Your task to perform on an android device: turn off data saver in the chrome app Image 0: 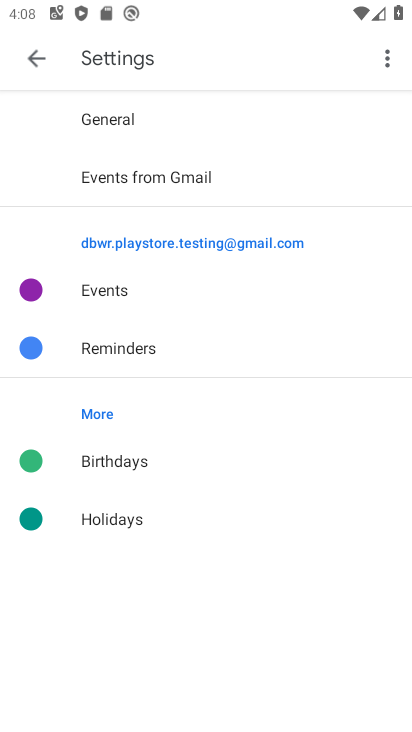
Step 0: press back button
Your task to perform on an android device: turn off data saver in the chrome app Image 1: 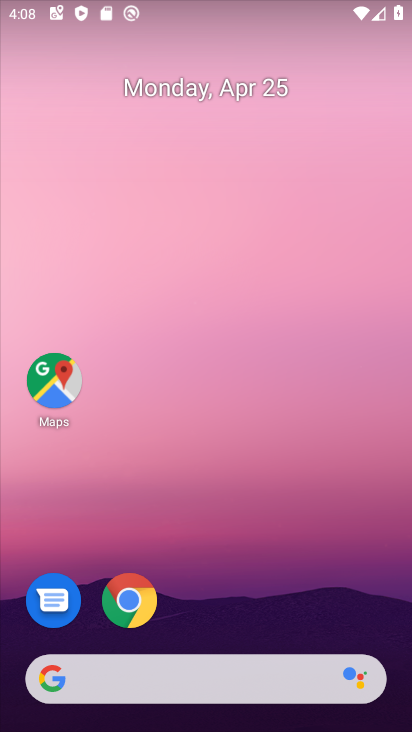
Step 1: drag from (337, 573) to (286, 0)
Your task to perform on an android device: turn off data saver in the chrome app Image 2: 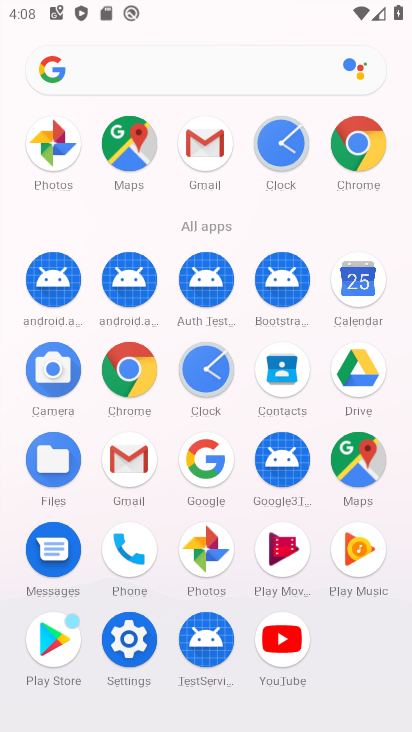
Step 2: click (358, 134)
Your task to perform on an android device: turn off data saver in the chrome app Image 3: 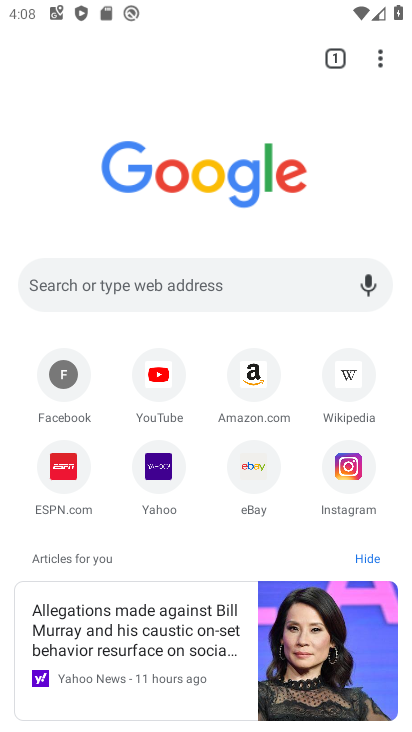
Step 3: drag from (380, 67) to (169, 500)
Your task to perform on an android device: turn off data saver in the chrome app Image 4: 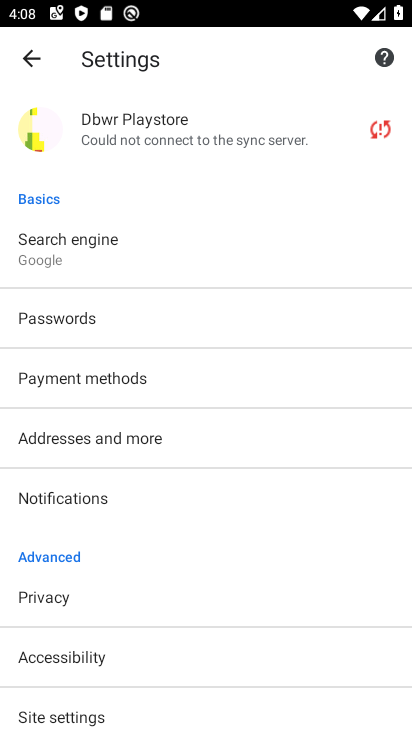
Step 4: drag from (243, 550) to (263, 164)
Your task to perform on an android device: turn off data saver in the chrome app Image 5: 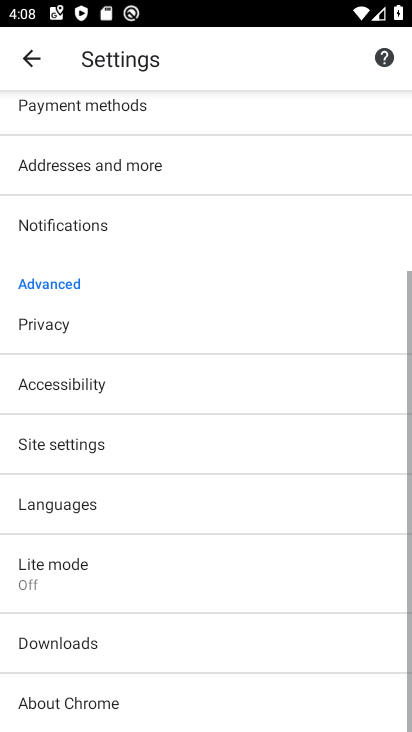
Step 5: click (117, 562)
Your task to perform on an android device: turn off data saver in the chrome app Image 6: 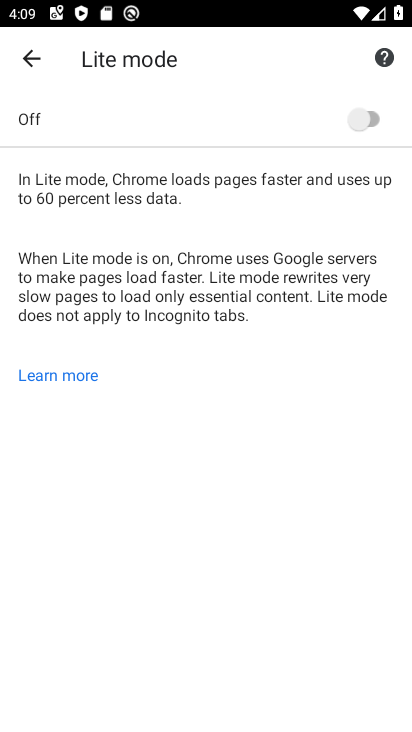
Step 6: task complete